Your task to perform on an android device: Empty the shopping cart on ebay. Image 0: 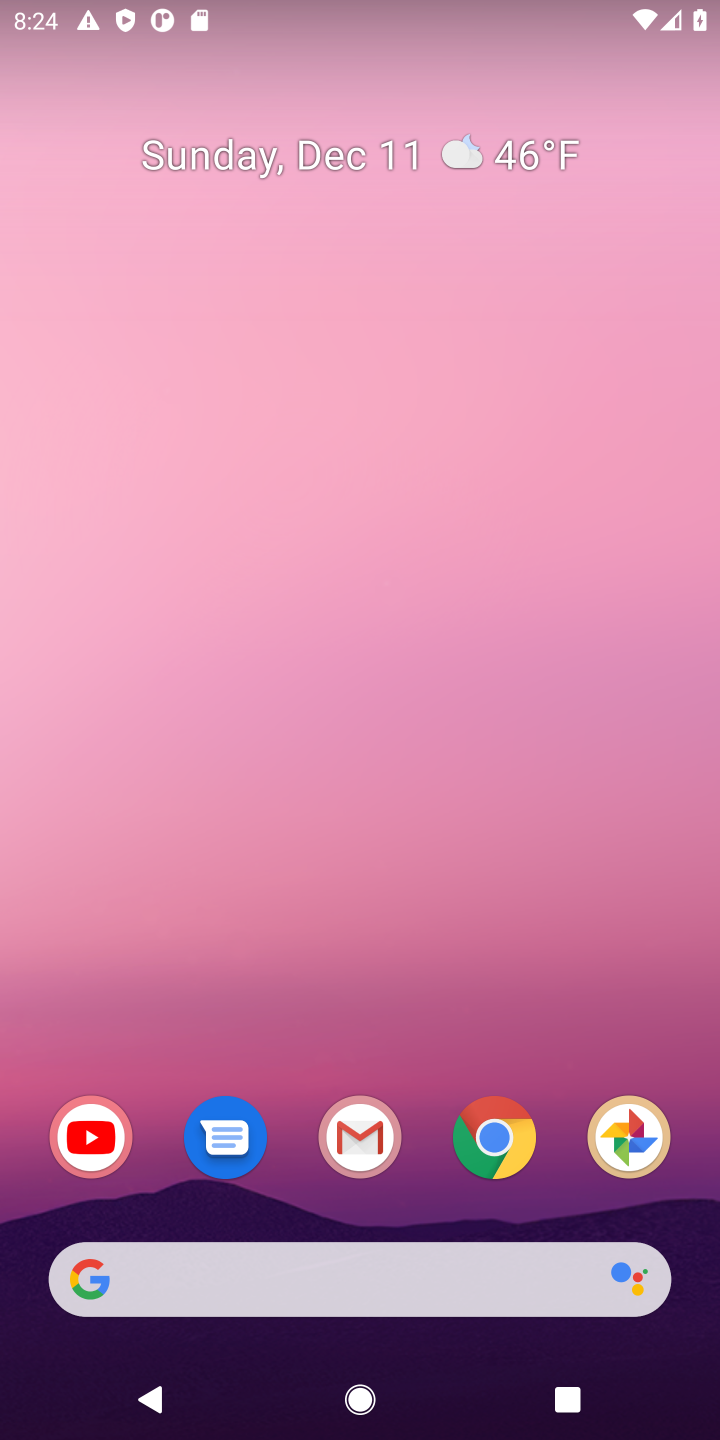
Step 0: click (492, 1137)
Your task to perform on an android device: Empty the shopping cart on ebay. Image 1: 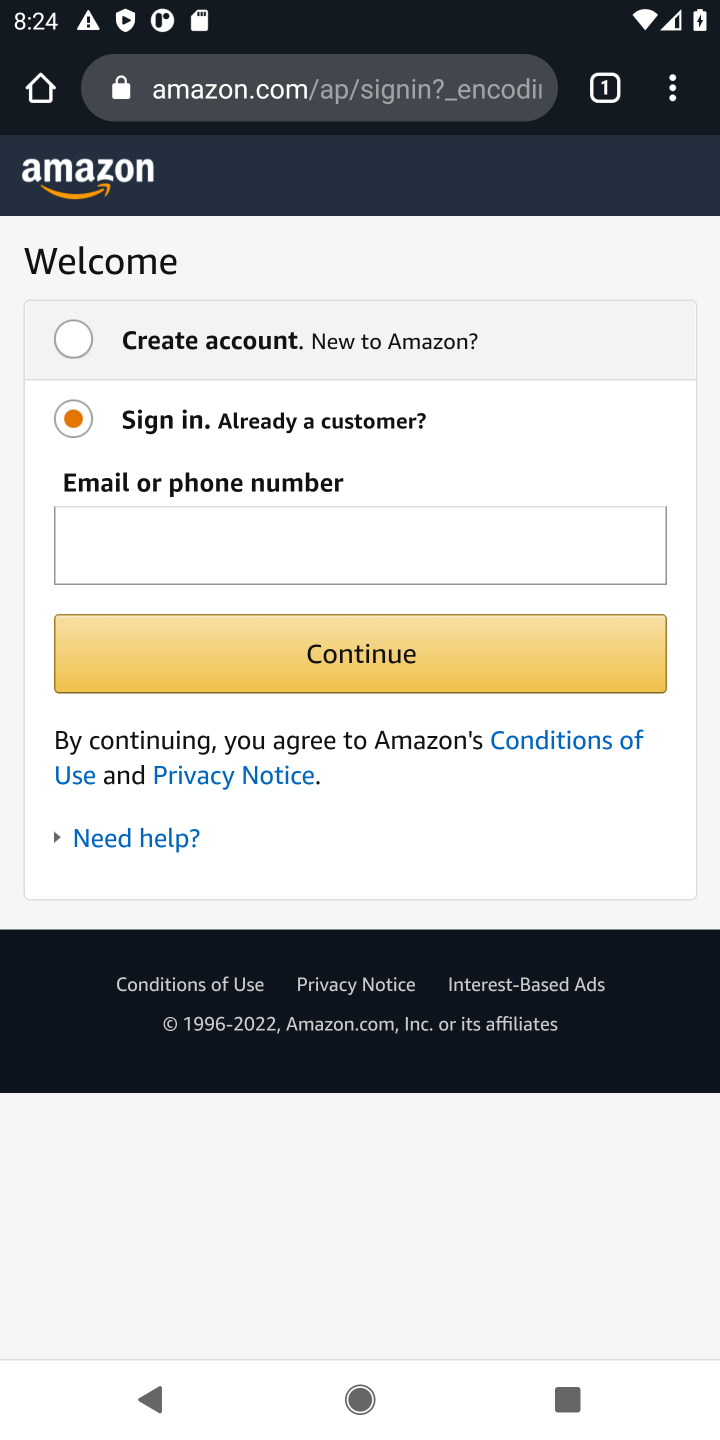
Step 1: click (321, 71)
Your task to perform on an android device: Empty the shopping cart on ebay. Image 2: 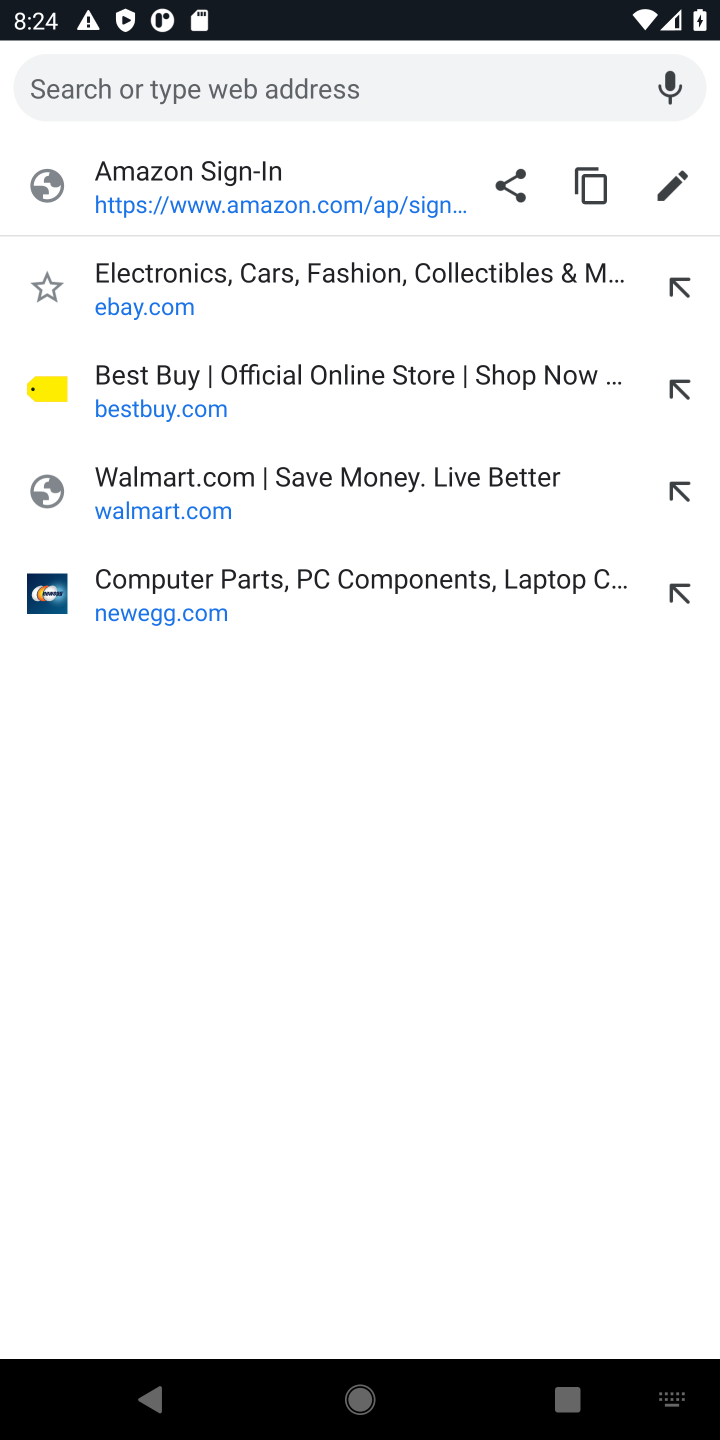
Step 2: click (314, 298)
Your task to perform on an android device: Empty the shopping cart on ebay. Image 3: 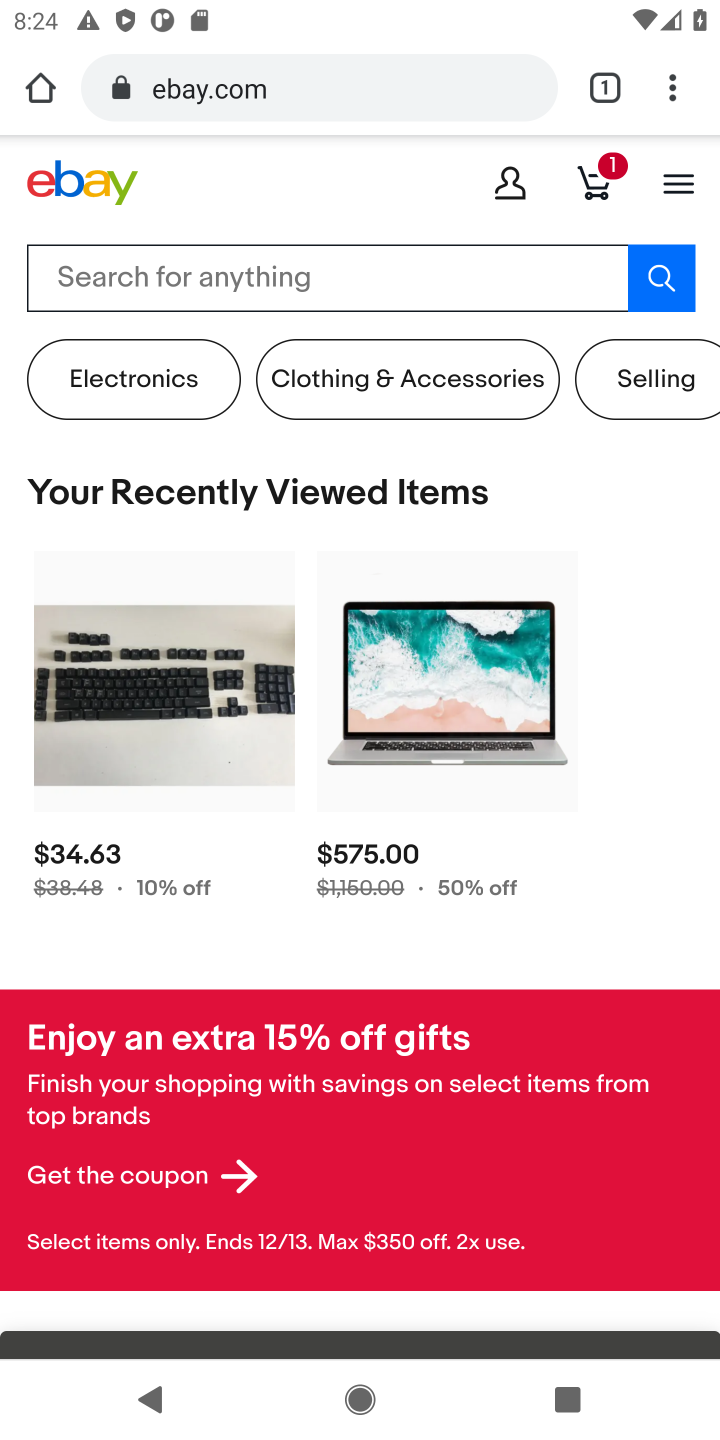
Step 3: click (414, 284)
Your task to perform on an android device: Empty the shopping cart on ebay. Image 4: 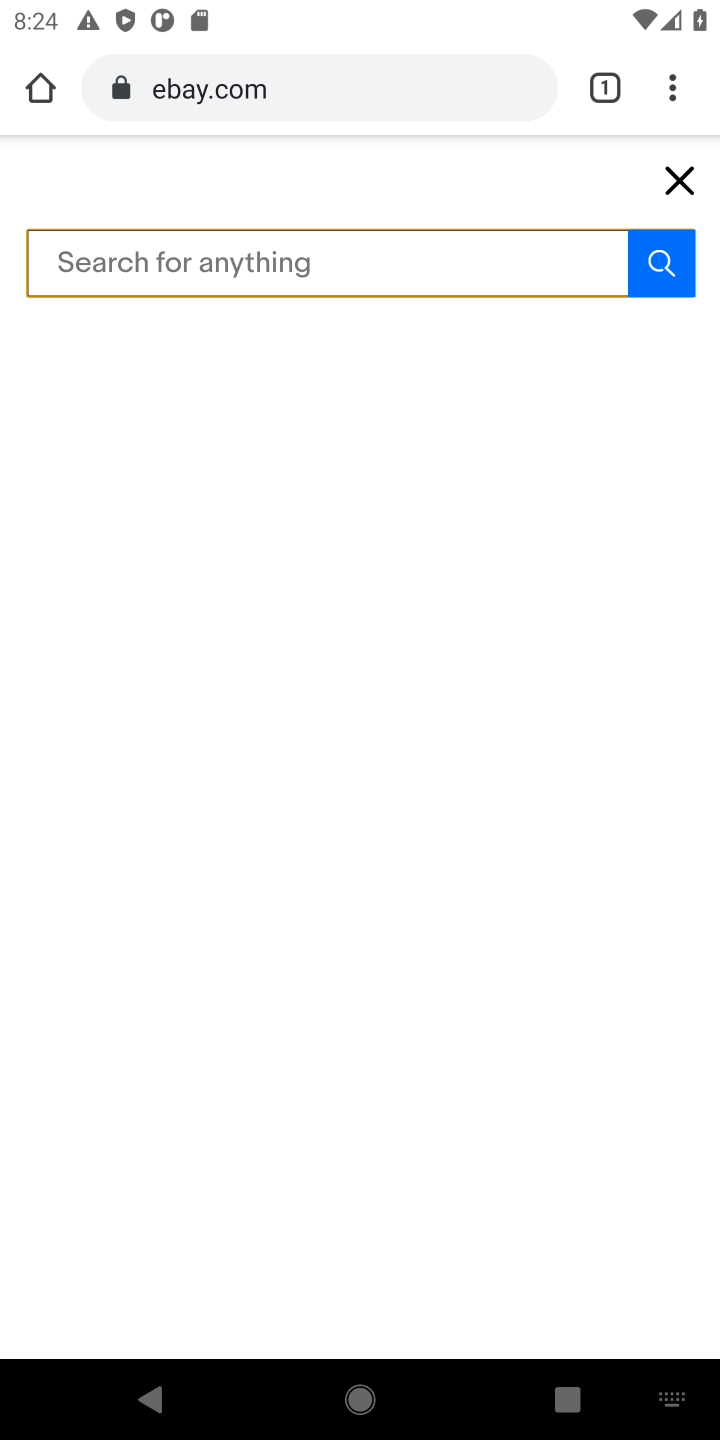
Step 4: click (680, 180)
Your task to perform on an android device: Empty the shopping cart on ebay. Image 5: 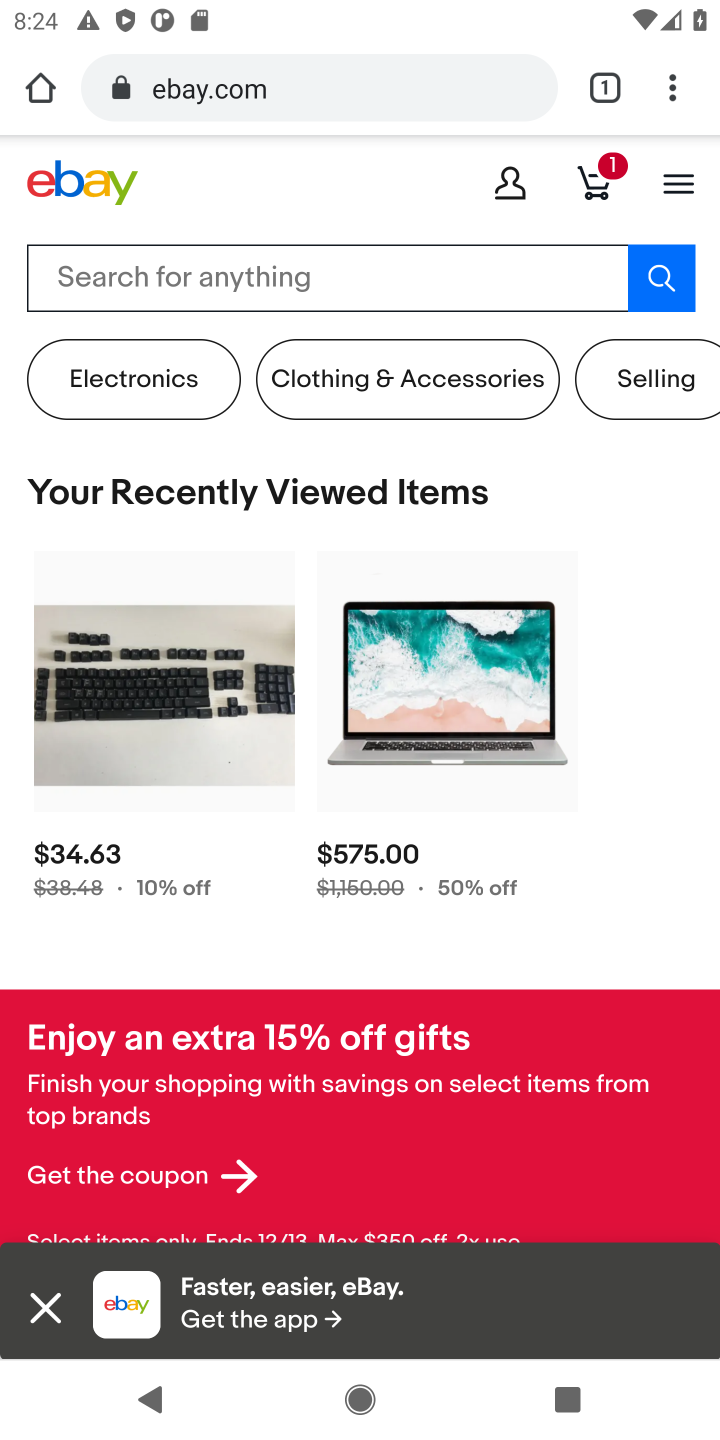
Step 5: click (590, 186)
Your task to perform on an android device: Empty the shopping cart on ebay. Image 6: 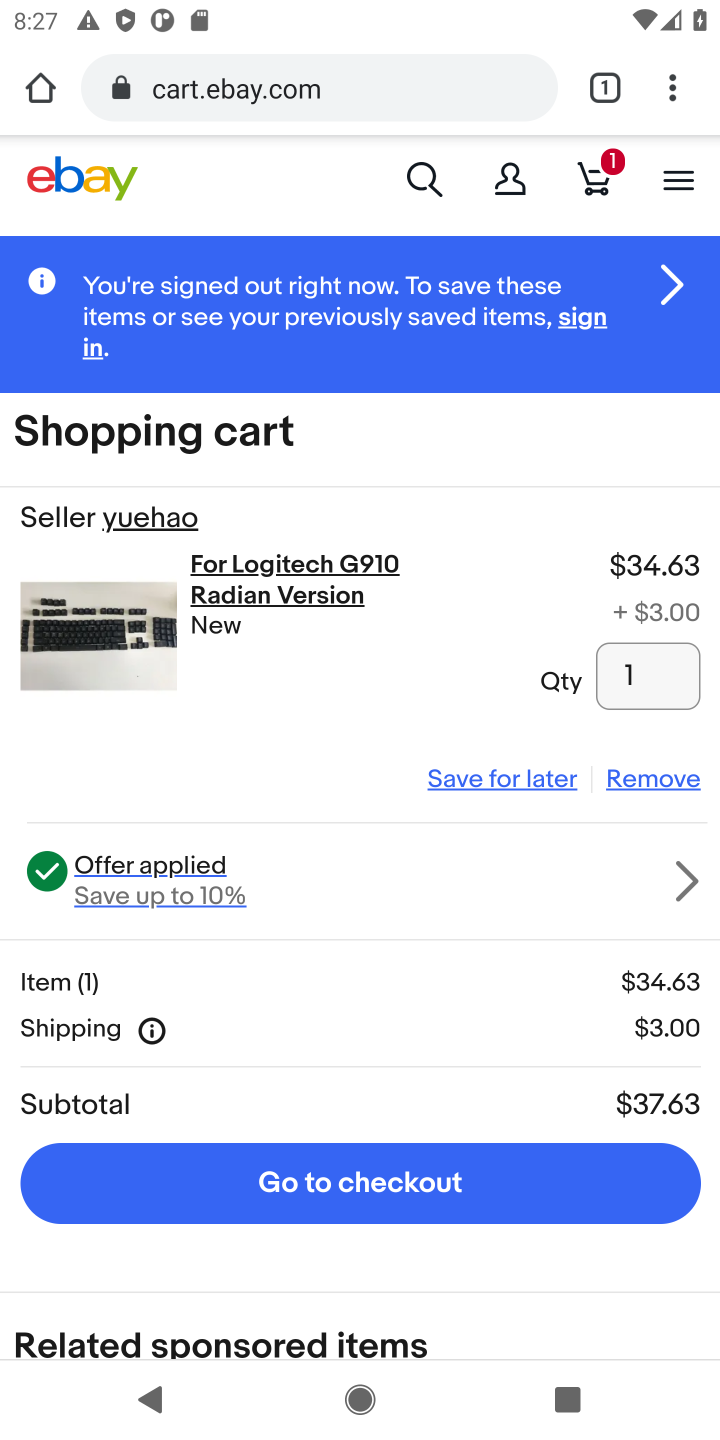
Step 6: click (660, 782)
Your task to perform on an android device: Empty the shopping cart on ebay. Image 7: 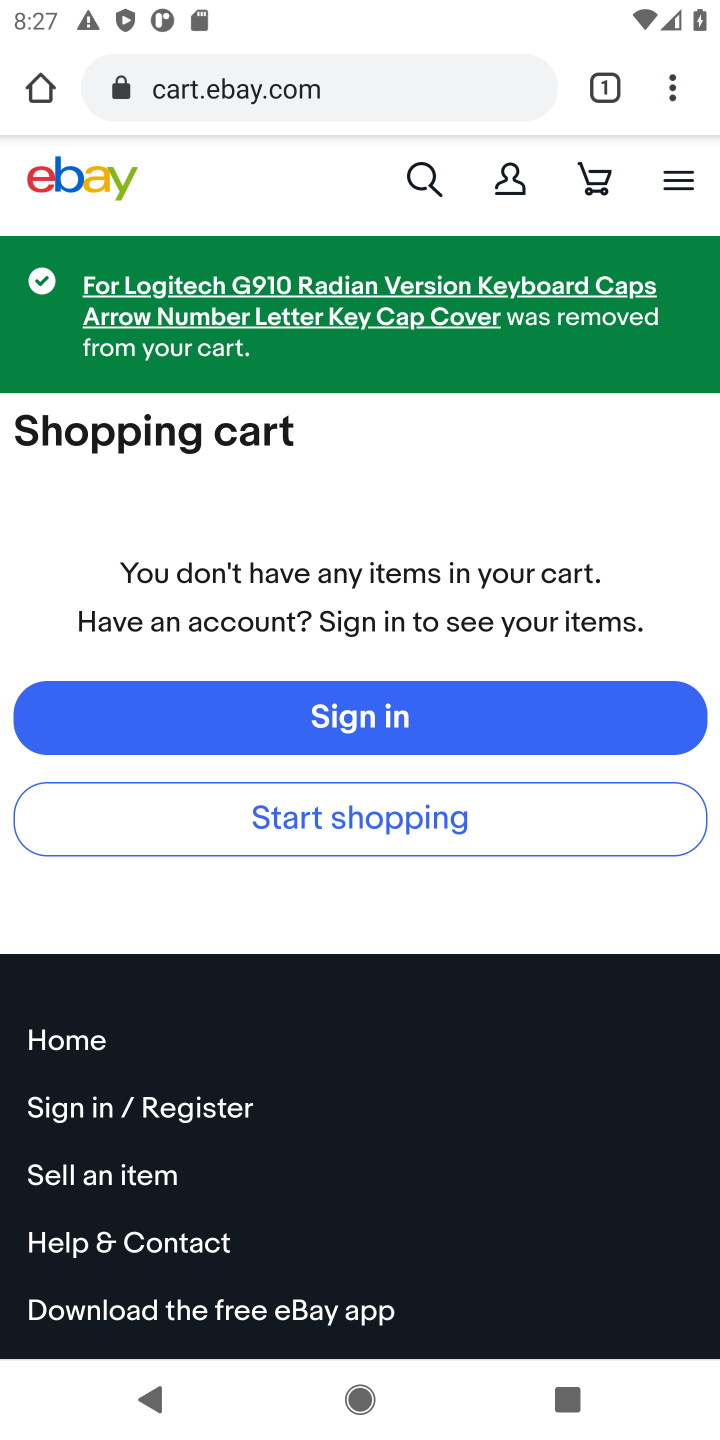
Step 7: task complete